Your task to perform on an android device: Open CNN.com Image 0: 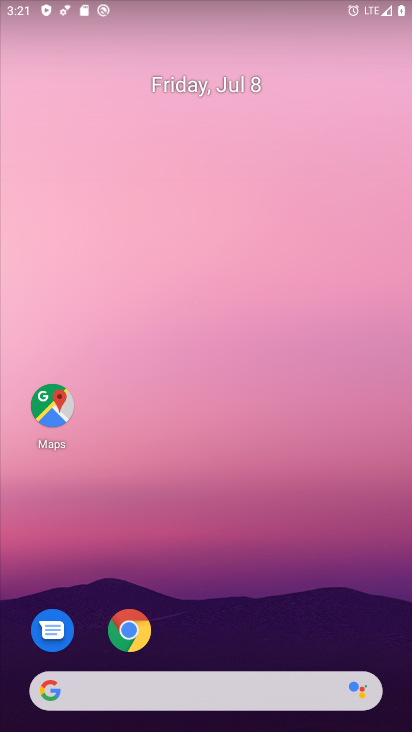
Step 0: click (291, 696)
Your task to perform on an android device: Open CNN.com Image 1: 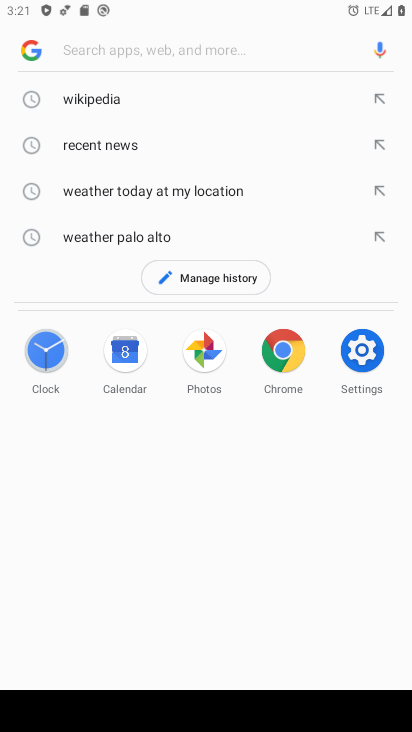
Step 1: type "cnn.com"
Your task to perform on an android device: Open CNN.com Image 2: 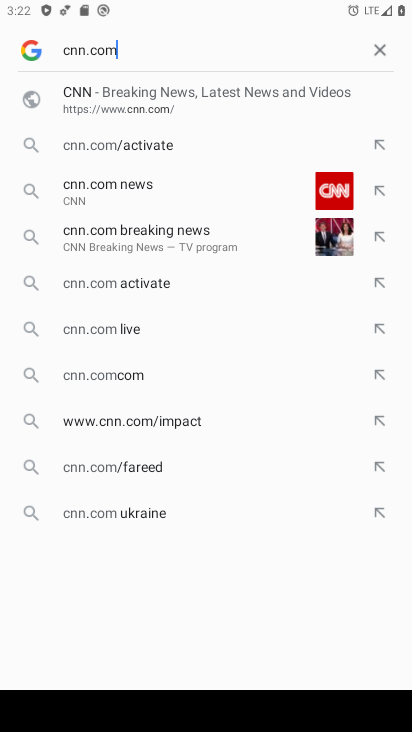
Step 2: press enter
Your task to perform on an android device: Open CNN.com Image 3: 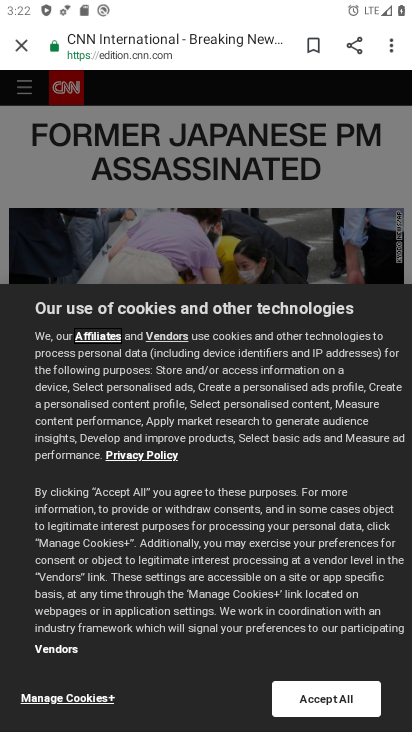
Step 3: task complete